Your task to perform on an android device: Turn off the flashlight Image 0: 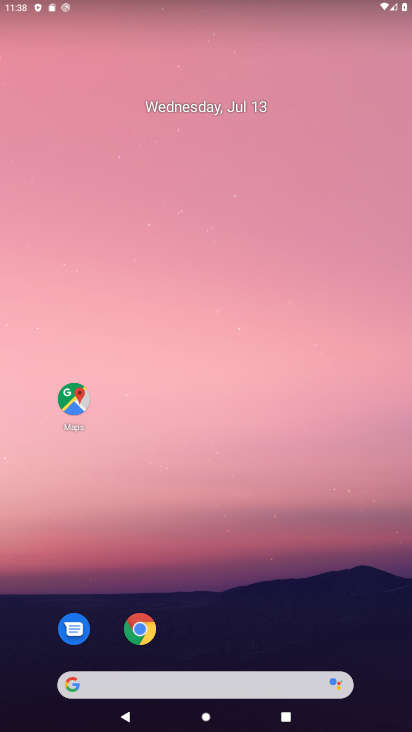
Step 0: drag from (272, 637) to (169, 168)
Your task to perform on an android device: Turn off the flashlight Image 1: 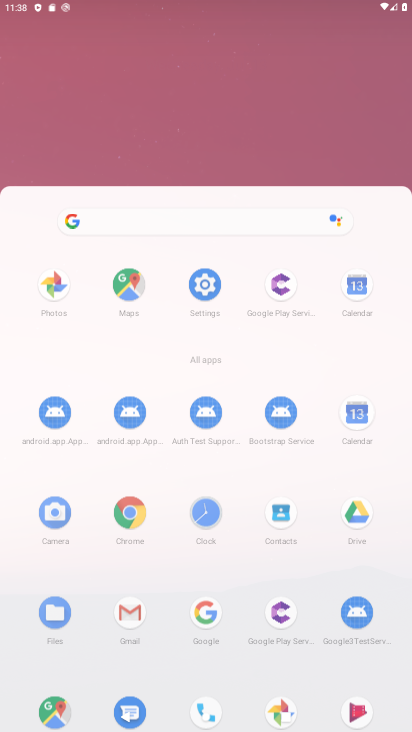
Step 1: task complete